Your task to perform on an android device: Open the phone app and click the voicemail tab. Image 0: 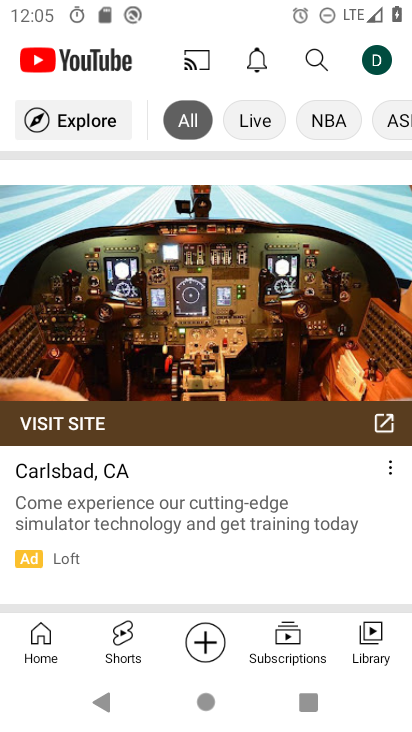
Step 0: press home button
Your task to perform on an android device: Open the phone app and click the voicemail tab. Image 1: 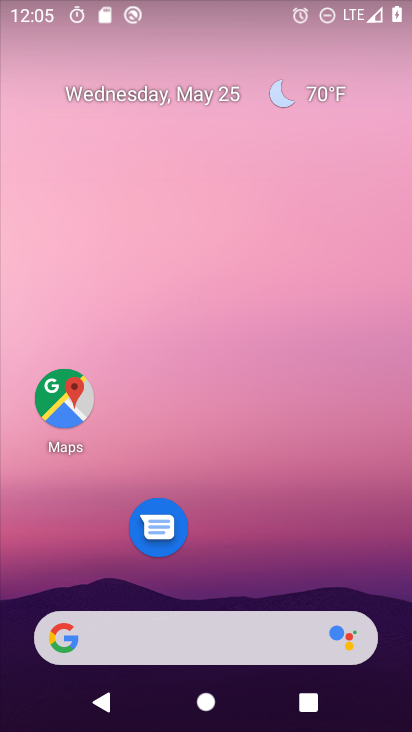
Step 1: drag from (241, 546) to (246, 0)
Your task to perform on an android device: Open the phone app and click the voicemail tab. Image 2: 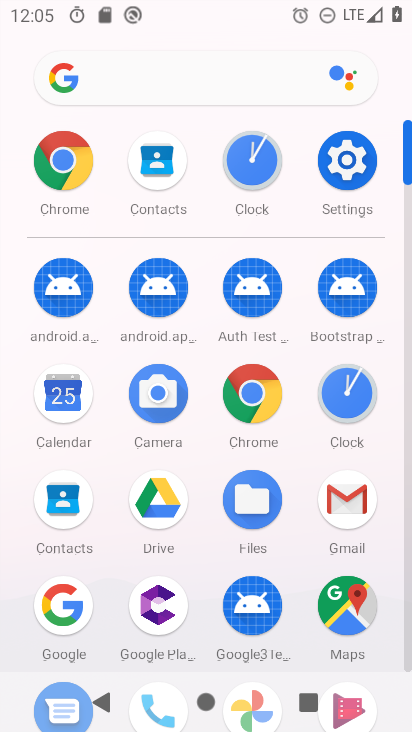
Step 2: drag from (194, 571) to (195, 306)
Your task to perform on an android device: Open the phone app and click the voicemail tab. Image 3: 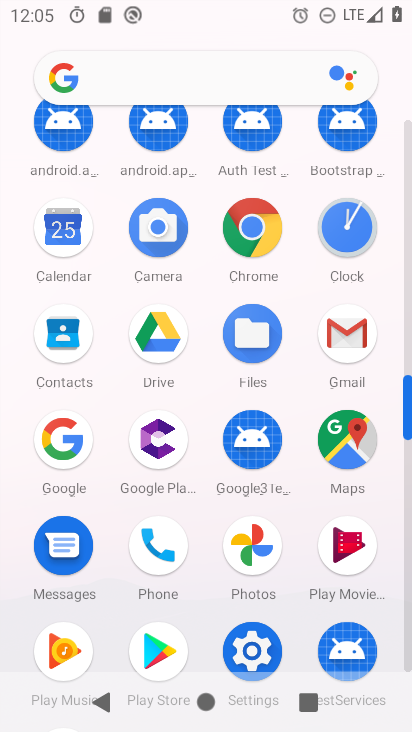
Step 3: click (163, 545)
Your task to perform on an android device: Open the phone app and click the voicemail tab. Image 4: 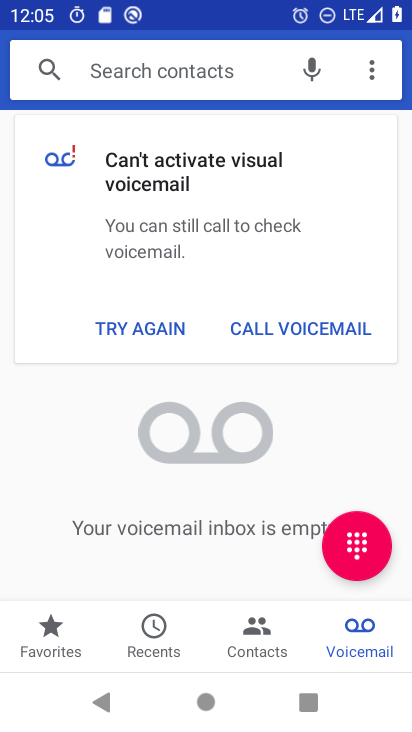
Step 4: task complete